Your task to perform on an android device: add a contact in the contacts app Image 0: 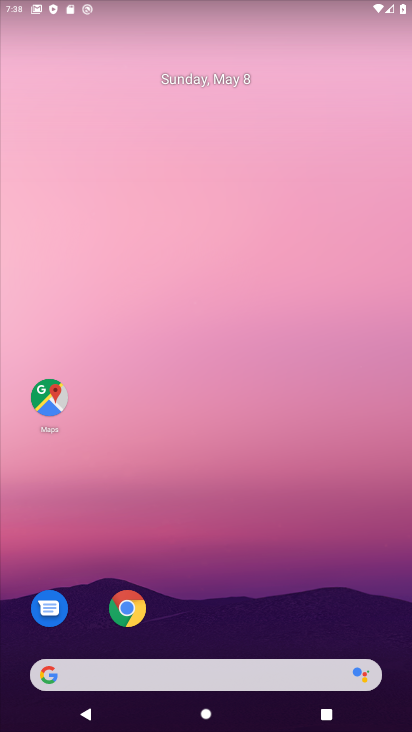
Step 0: drag from (294, 525) to (293, 307)
Your task to perform on an android device: add a contact in the contacts app Image 1: 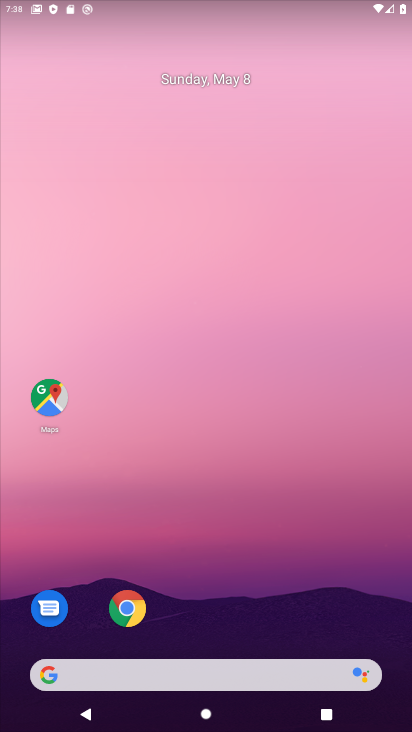
Step 1: drag from (216, 405) to (212, 240)
Your task to perform on an android device: add a contact in the contacts app Image 2: 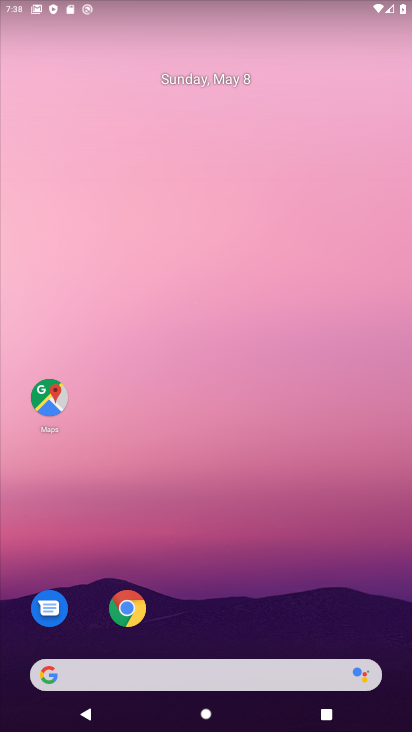
Step 2: drag from (200, 597) to (251, 170)
Your task to perform on an android device: add a contact in the contacts app Image 3: 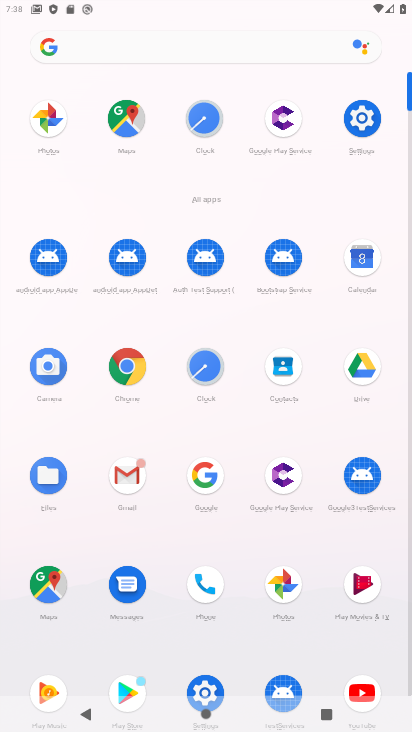
Step 3: click (198, 573)
Your task to perform on an android device: add a contact in the contacts app Image 4: 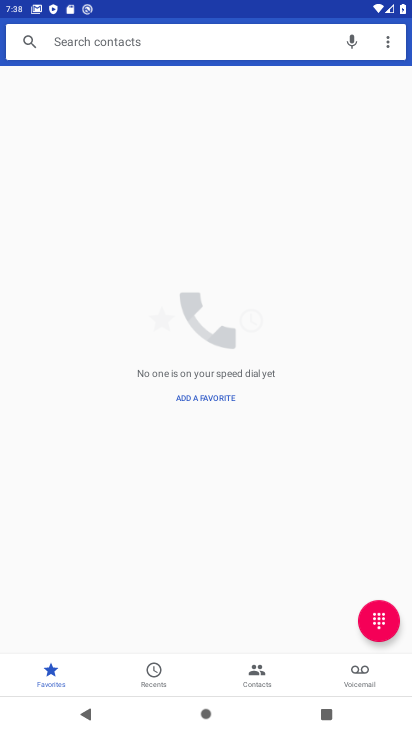
Step 4: click (201, 391)
Your task to perform on an android device: add a contact in the contacts app Image 5: 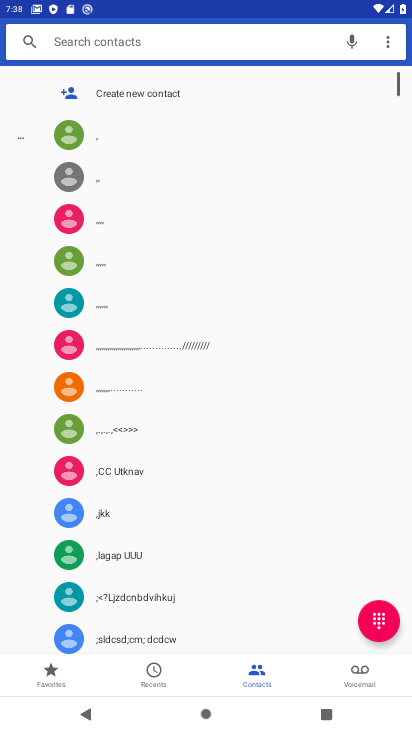
Step 5: click (125, 85)
Your task to perform on an android device: add a contact in the contacts app Image 6: 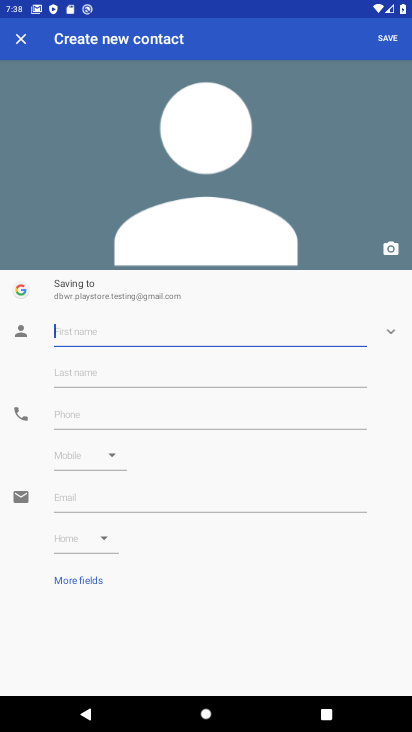
Step 6: click (179, 327)
Your task to perform on an android device: add a contact in the contacts app Image 7: 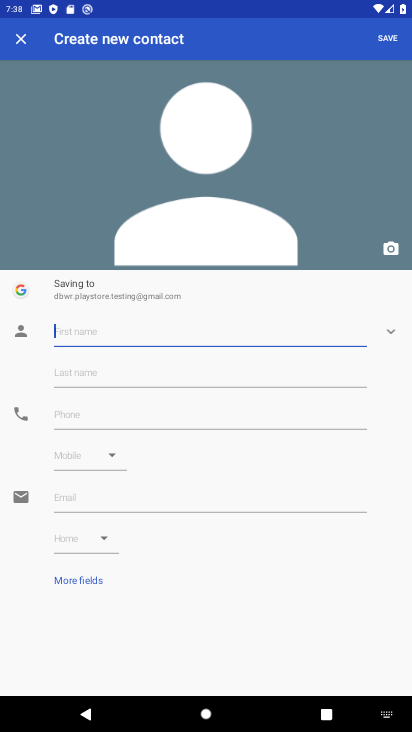
Step 7: type "lklklklklkllkuuuu"
Your task to perform on an android device: add a contact in the contacts app Image 8: 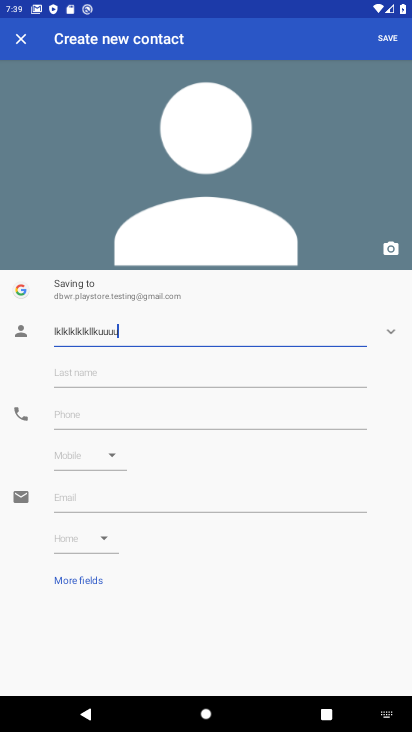
Step 8: click (232, 408)
Your task to perform on an android device: add a contact in the contacts app Image 9: 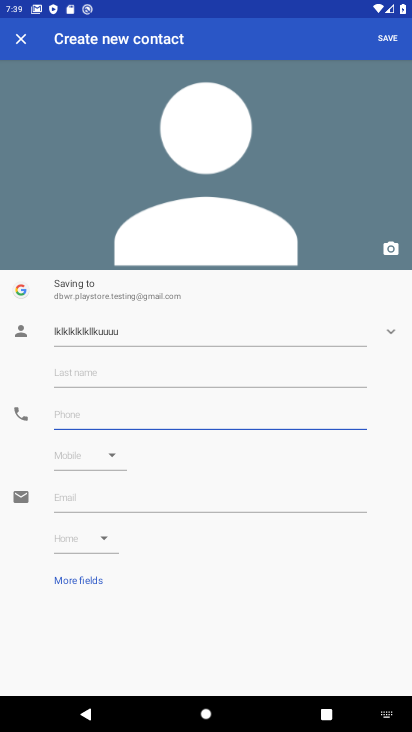
Step 9: type "7777777777777"
Your task to perform on an android device: add a contact in the contacts app Image 10: 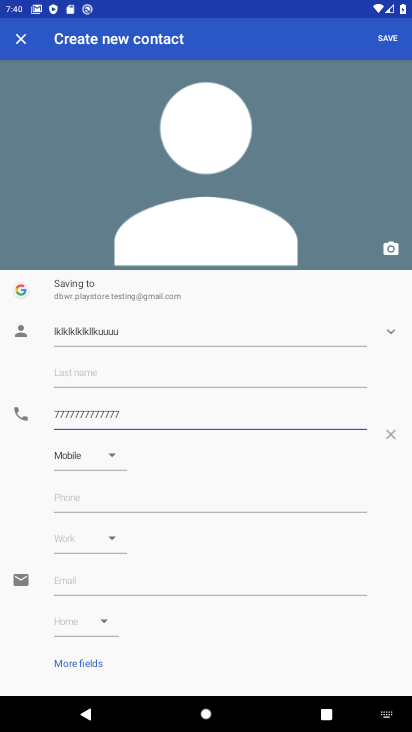
Step 10: click (380, 34)
Your task to perform on an android device: add a contact in the contacts app Image 11: 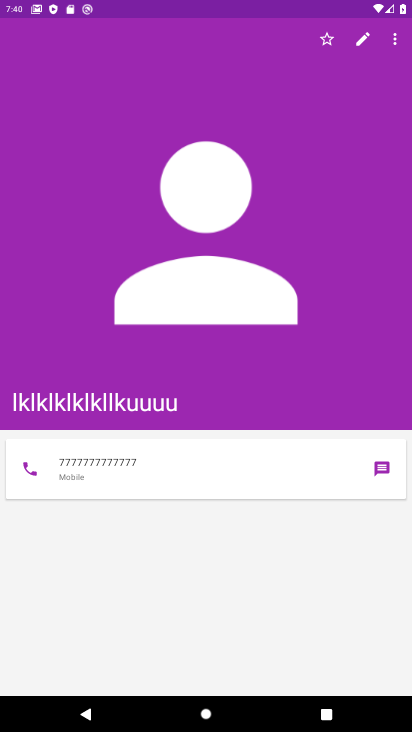
Step 11: task complete